Your task to perform on an android device: Clear the shopping cart on bestbuy.com. Add macbook pro to the cart on bestbuy.com Image 0: 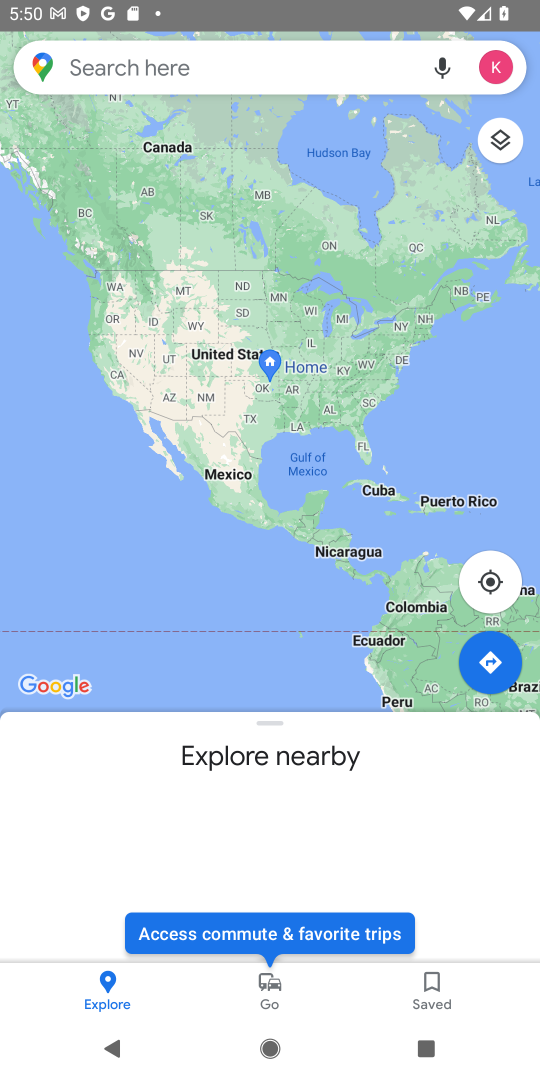
Step 0: press home button
Your task to perform on an android device: Clear the shopping cart on bestbuy.com. Add macbook pro to the cart on bestbuy.com Image 1: 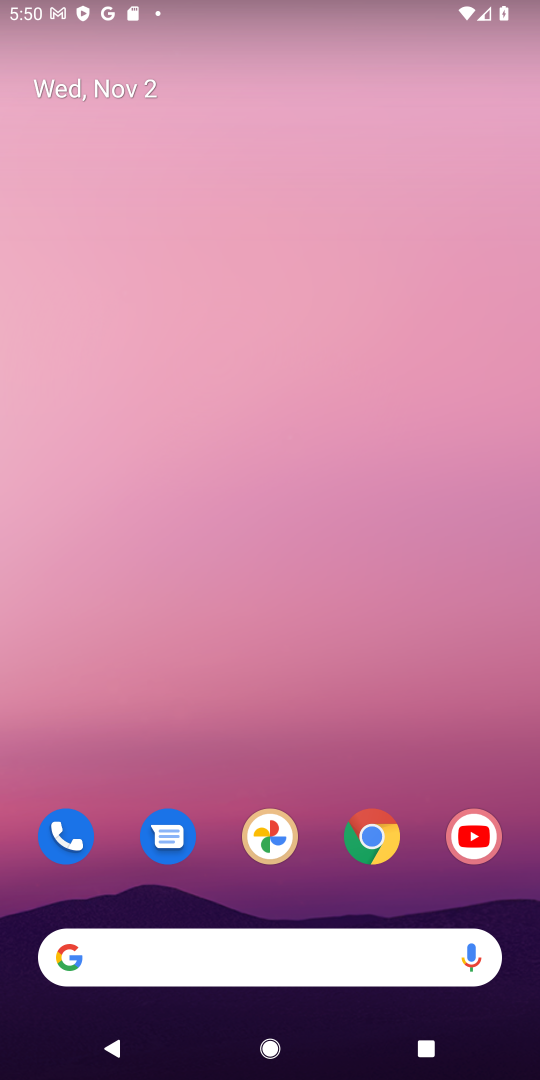
Step 1: drag from (250, 953) to (246, 215)
Your task to perform on an android device: Clear the shopping cart on bestbuy.com. Add macbook pro to the cart on bestbuy.com Image 2: 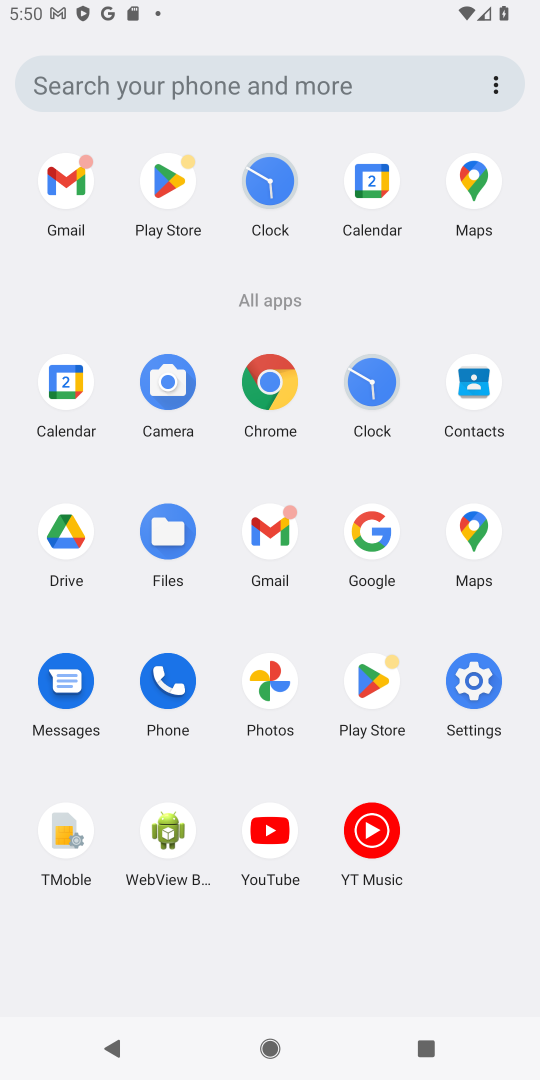
Step 2: click (372, 538)
Your task to perform on an android device: Clear the shopping cart on bestbuy.com. Add macbook pro to the cart on bestbuy.com Image 3: 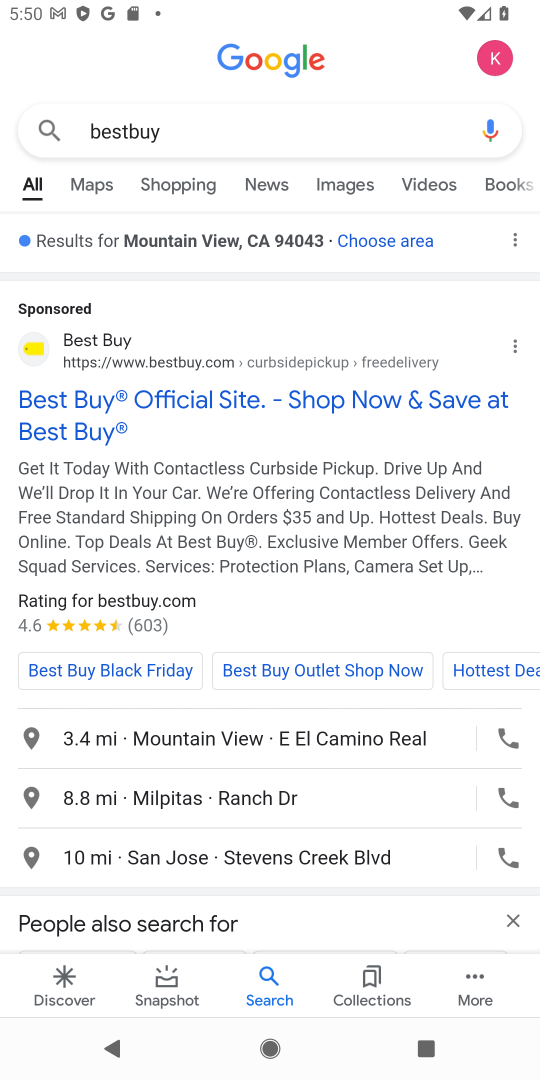
Step 3: click (78, 396)
Your task to perform on an android device: Clear the shopping cart on bestbuy.com. Add macbook pro to the cart on bestbuy.com Image 4: 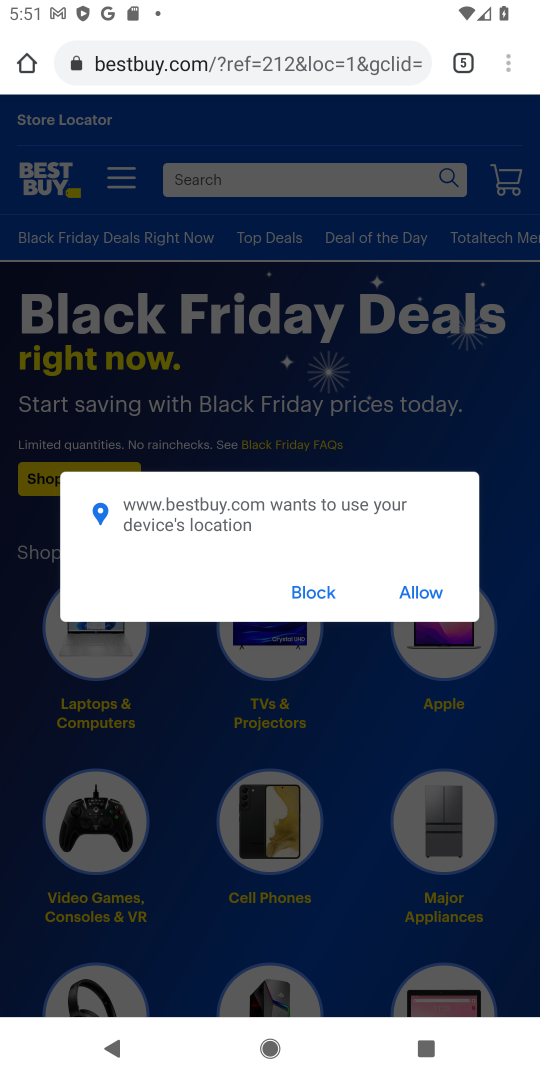
Step 4: click (323, 596)
Your task to perform on an android device: Clear the shopping cart on bestbuy.com. Add macbook pro to the cart on bestbuy.com Image 5: 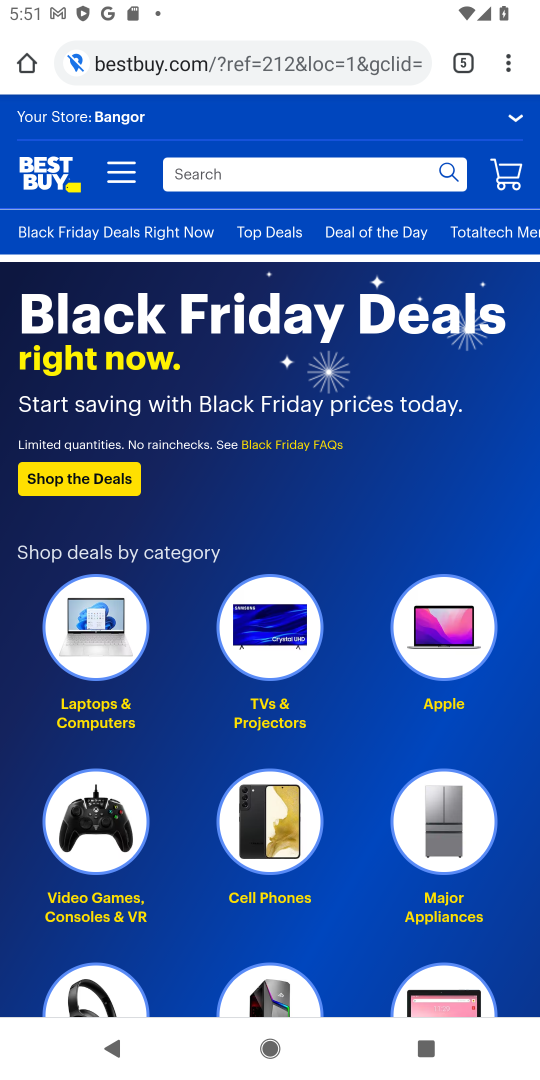
Step 5: click (265, 177)
Your task to perform on an android device: Clear the shopping cart on bestbuy.com. Add macbook pro to the cart on bestbuy.com Image 6: 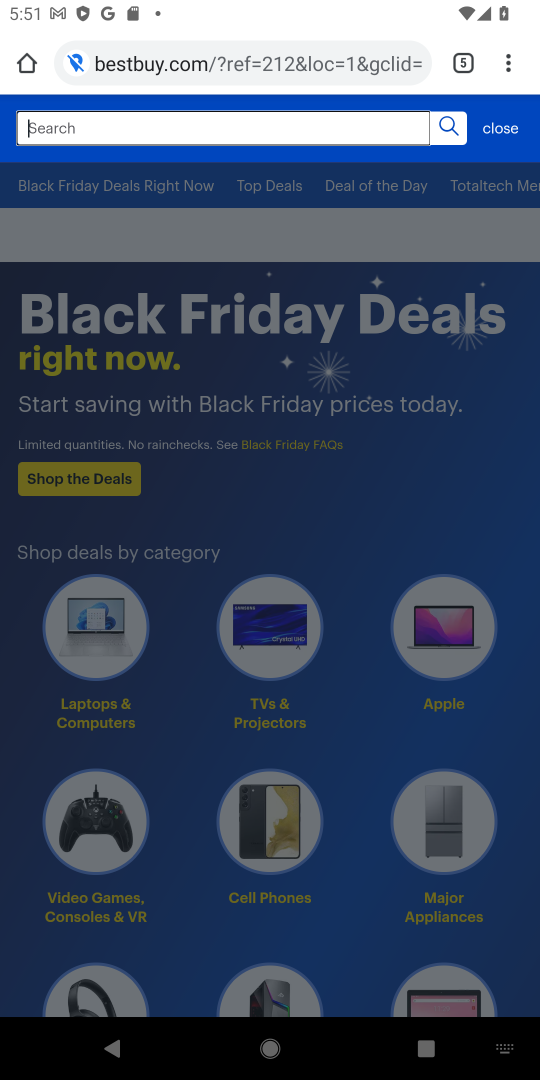
Step 6: type "macbook pro"
Your task to perform on an android device: Clear the shopping cart on bestbuy.com. Add macbook pro to the cart on bestbuy.com Image 7: 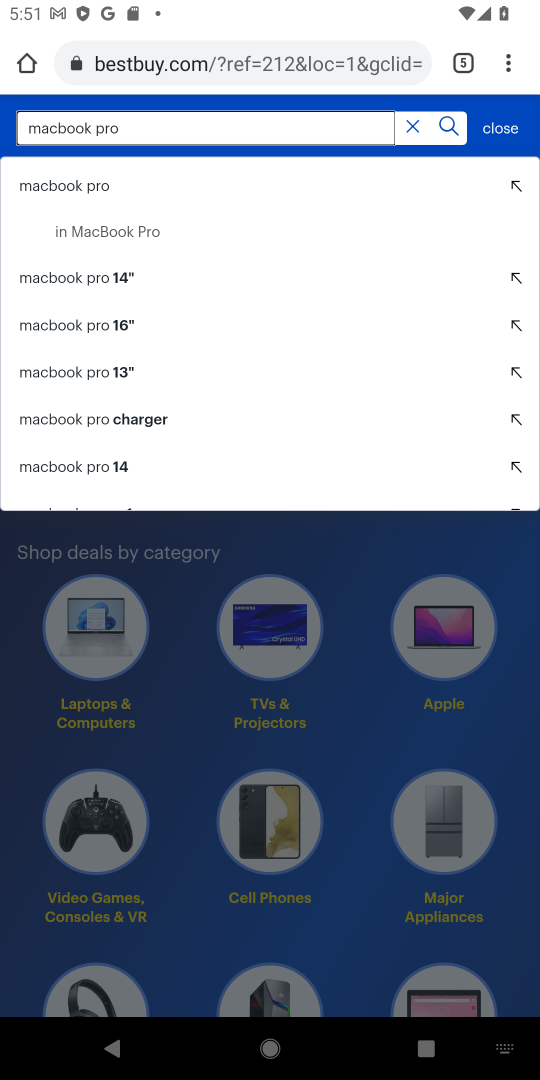
Step 7: click (64, 189)
Your task to perform on an android device: Clear the shopping cart on bestbuy.com. Add macbook pro to the cart on bestbuy.com Image 8: 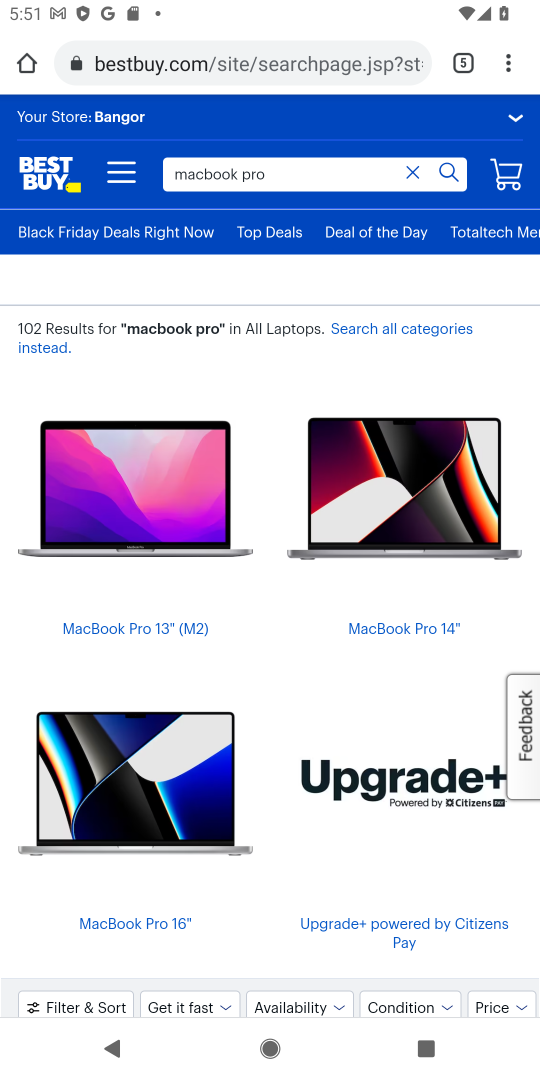
Step 8: click (129, 477)
Your task to perform on an android device: Clear the shopping cart on bestbuy.com. Add macbook pro to the cart on bestbuy.com Image 9: 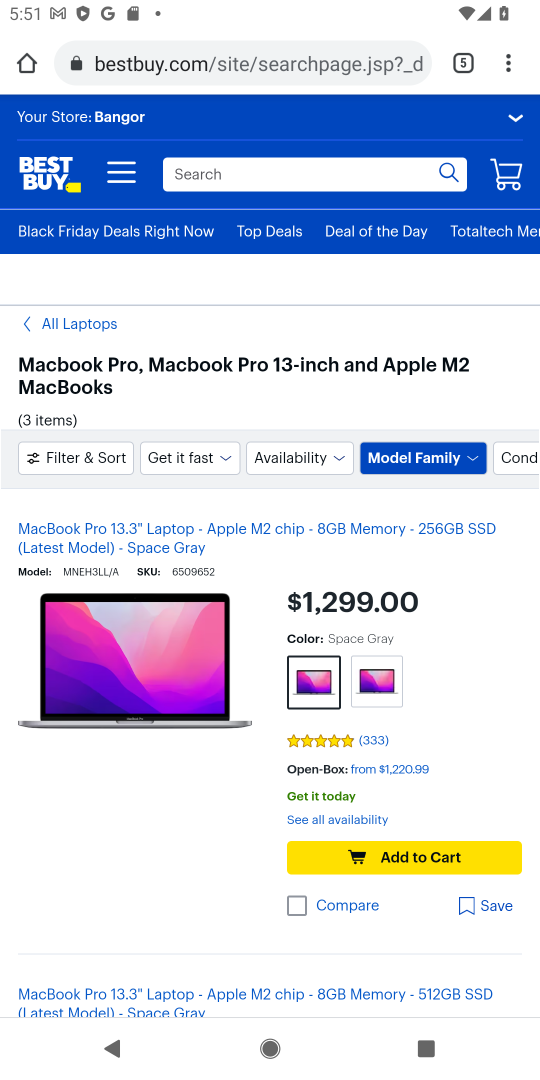
Step 9: click (420, 853)
Your task to perform on an android device: Clear the shopping cart on bestbuy.com. Add macbook pro to the cart on bestbuy.com Image 10: 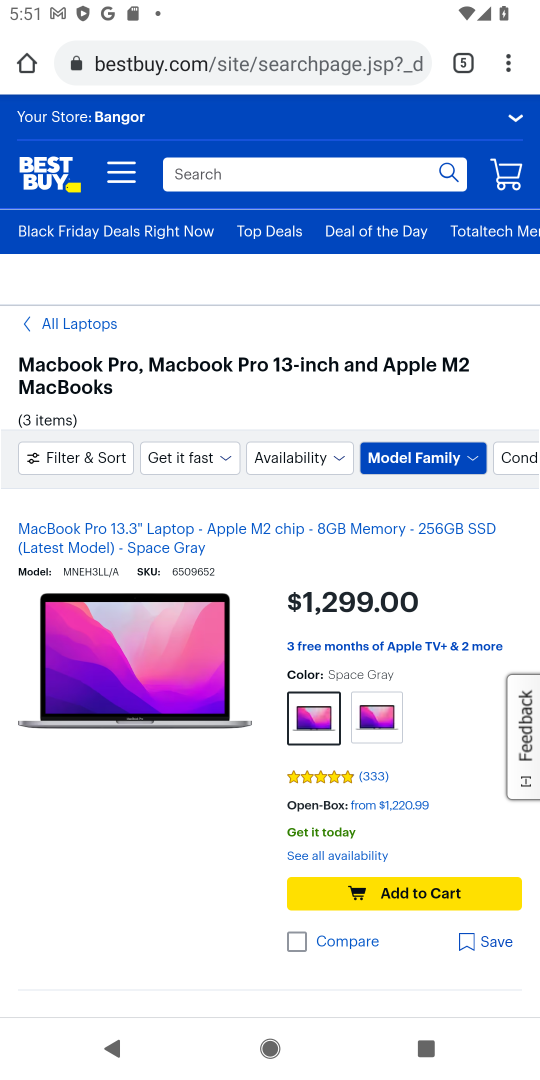
Step 10: click (394, 892)
Your task to perform on an android device: Clear the shopping cart on bestbuy.com. Add macbook pro to the cart on bestbuy.com Image 11: 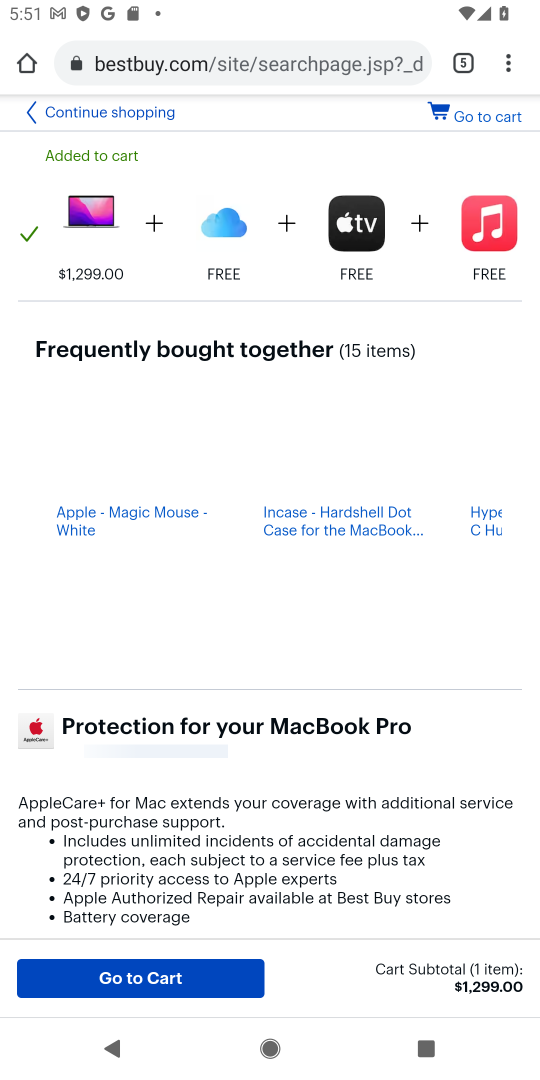
Step 11: task complete